Your task to perform on an android device: clear all cookies in the chrome app Image 0: 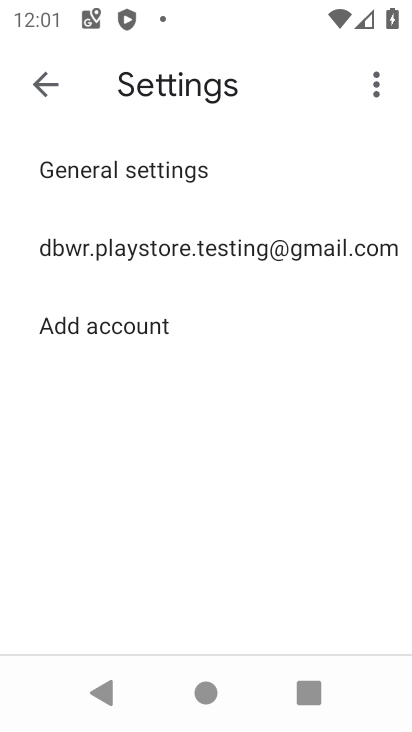
Step 0: click (158, 247)
Your task to perform on an android device: clear all cookies in the chrome app Image 1: 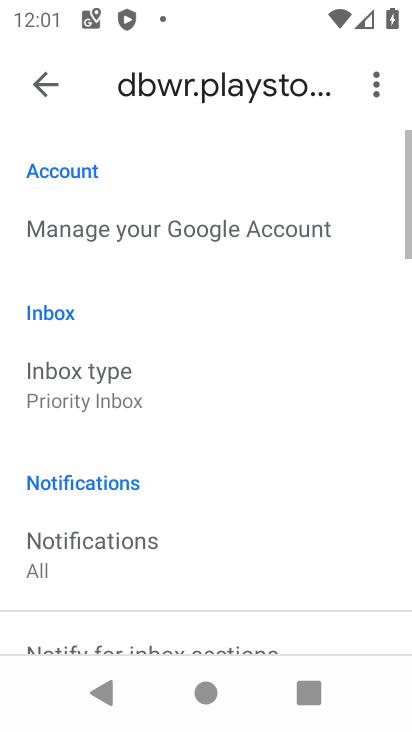
Step 1: click (60, 90)
Your task to perform on an android device: clear all cookies in the chrome app Image 2: 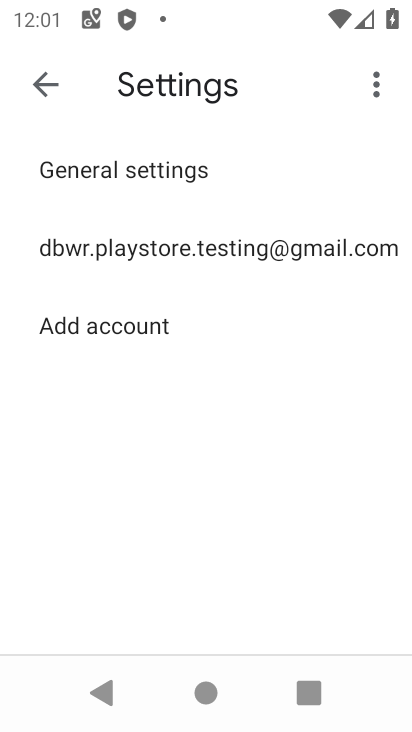
Step 2: press back button
Your task to perform on an android device: clear all cookies in the chrome app Image 3: 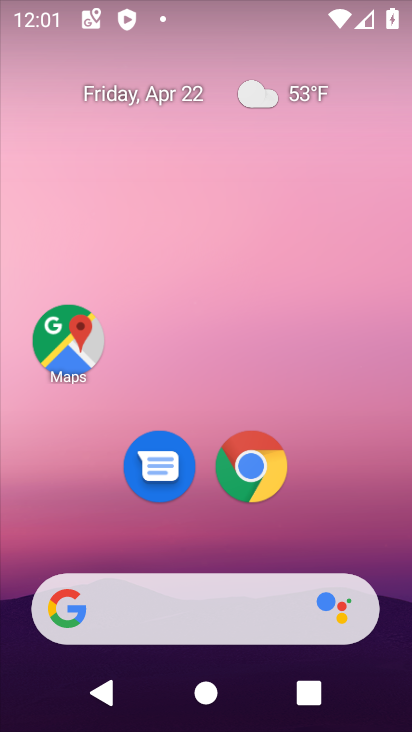
Step 3: click (254, 462)
Your task to perform on an android device: clear all cookies in the chrome app Image 4: 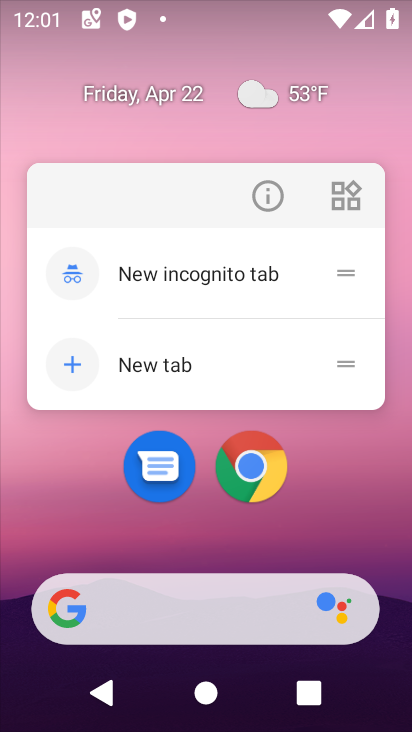
Step 4: click (247, 462)
Your task to perform on an android device: clear all cookies in the chrome app Image 5: 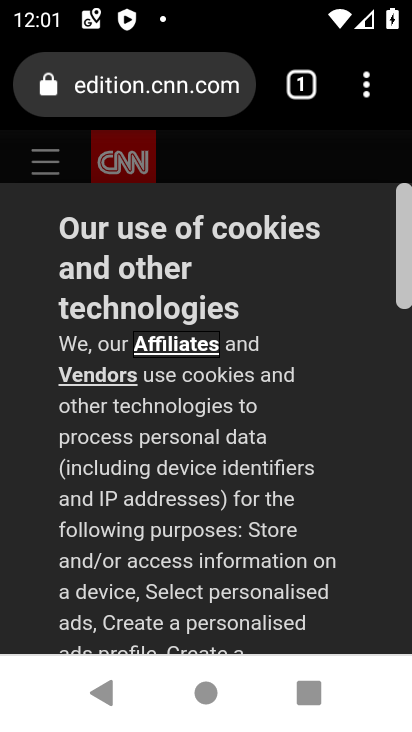
Step 5: drag from (359, 83) to (122, 513)
Your task to perform on an android device: clear all cookies in the chrome app Image 6: 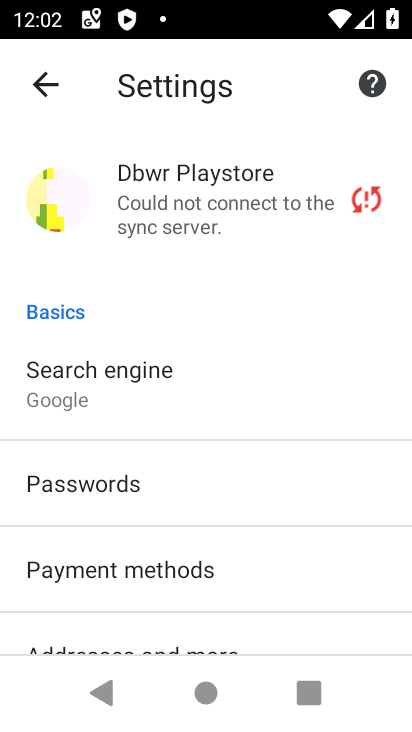
Step 6: drag from (211, 638) to (198, 331)
Your task to perform on an android device: clear all cookies in the chrome app Image 7: 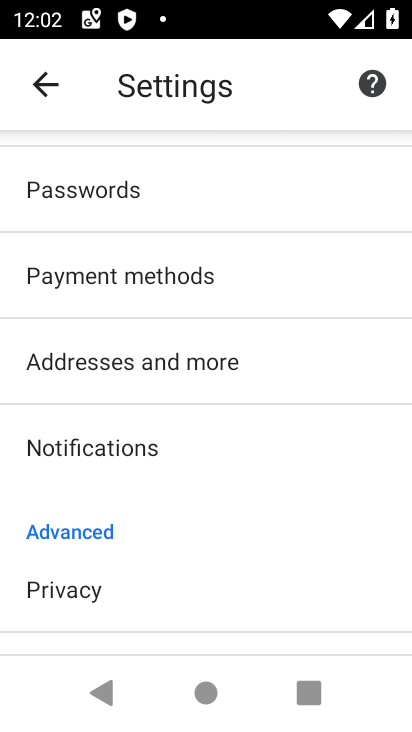
Step 7: drag from (215, 272) to (224, 559)
Your task to perform on an android device: clear all cookies in the chrome app Image 8: 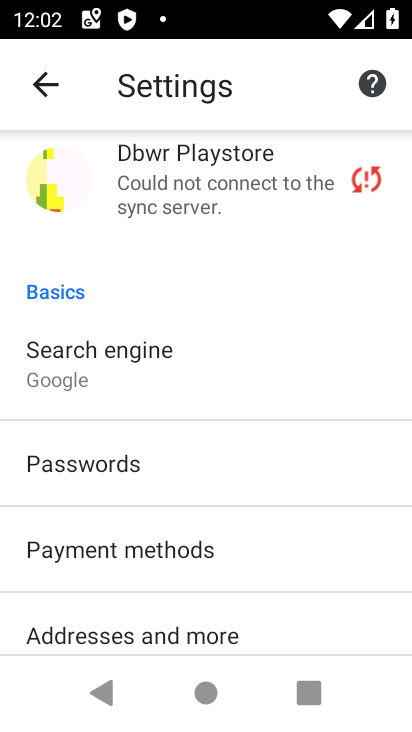
Step 8: drag from (270, 545) to (237, 332)
Your task to perform on an android device: clear all cookies in the chrome app Image 9: 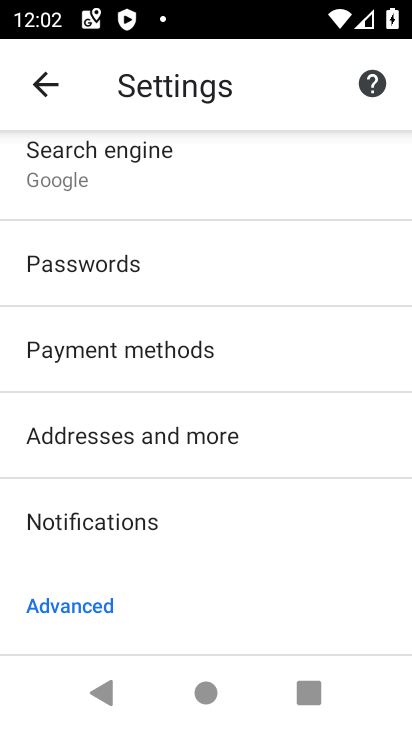
Step 9: drag from (189, 470) to (185, 199)
Your task to perform on an android device: clear all cookies in the chrome app Image 10: 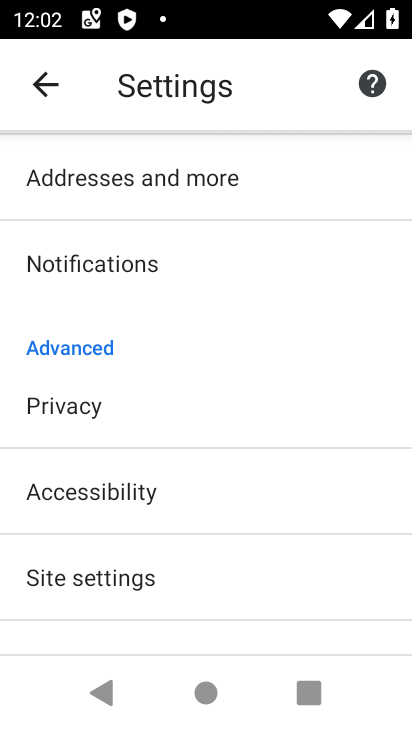
Step 10: click (129, 387)
Your task to perform on an android device: clear all cookies in the chrome app Image 11: 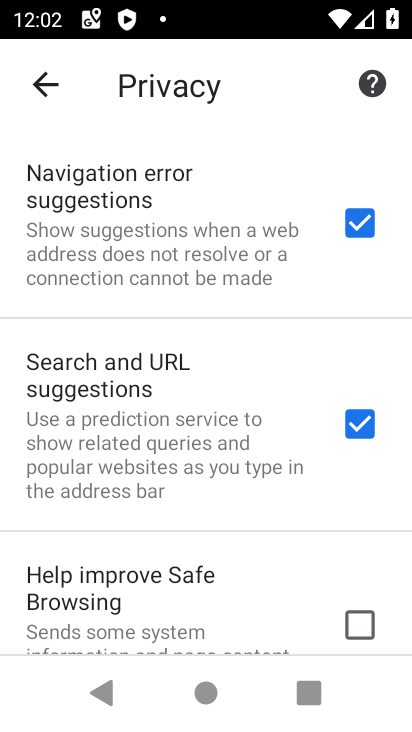
Step 11: drag from (190, 517) to (202, 101)
Your task to perform on an android device: clear all cookies in the chrome app Image 12: 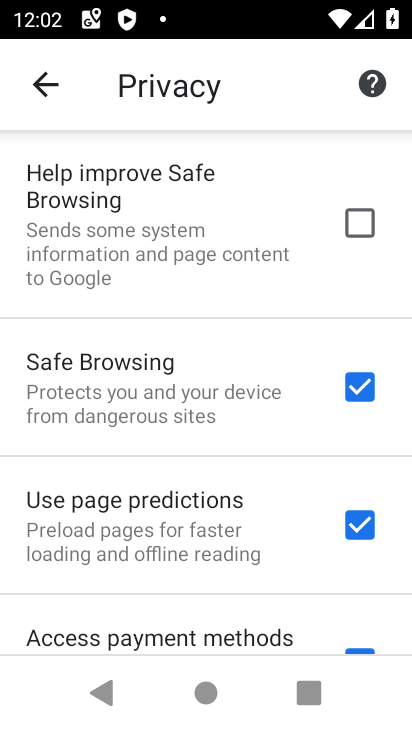
Step 12: drag from (151, 576) to (160, 203)
Your task to perform on an android device: clear all cookies in the chrome app Image 13: 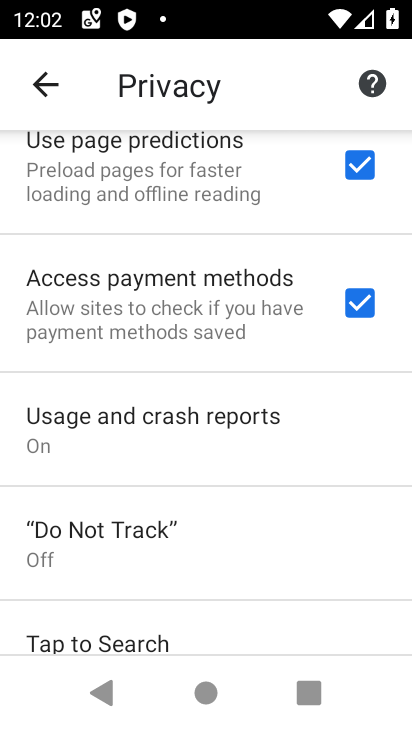
Step 13: drag from (159, 431) to (189, 136)
Your task to perform on an android device: clear all cookies in the chrome app Image 14: 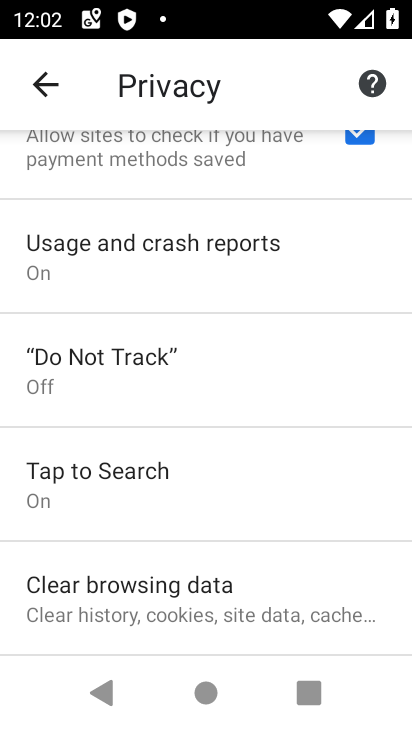
Step 14: drag from (187, 544) to (157, 191)
Your task to perform on an android device: clear all cookies in the chrome app Image 15: 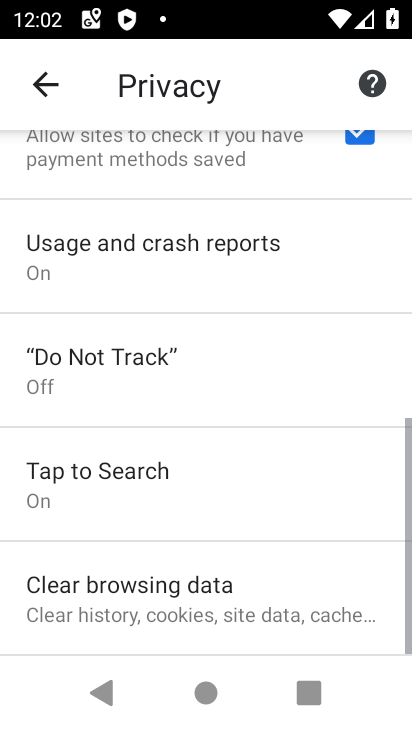
Step 15: click (107, 561)
Your task to perform on an android device: clear all cookies in the chrome app Image 16: 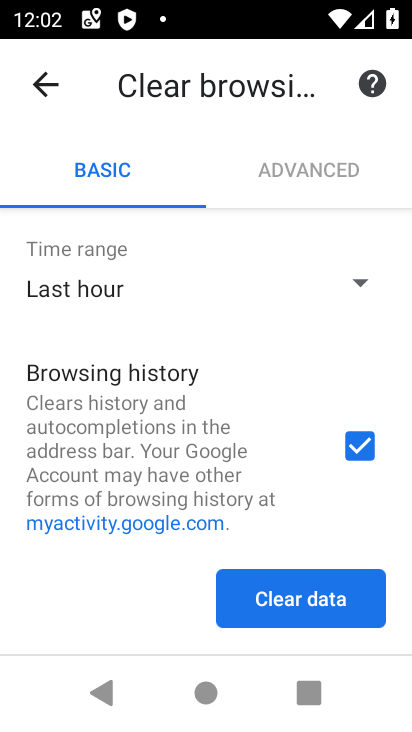
Step 16: drag from (219, 422) to (244, 197)
Your task to perform on an android device: clear all cookies in the chrome app Image 17: 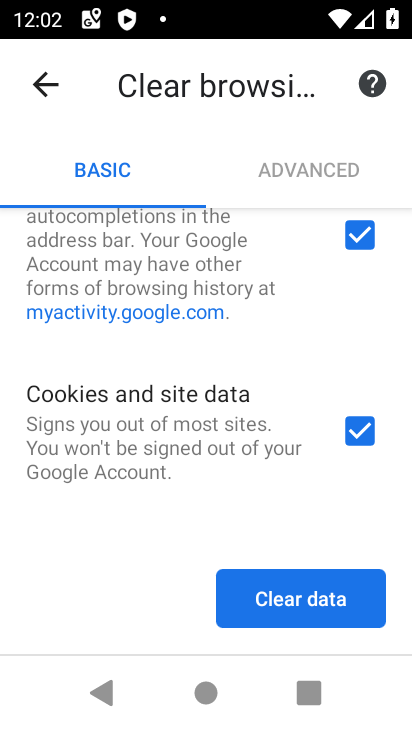
Step 17: click (349, 232)
Your task to perform on an android device: clear all cookies in the chrome app Image 18: 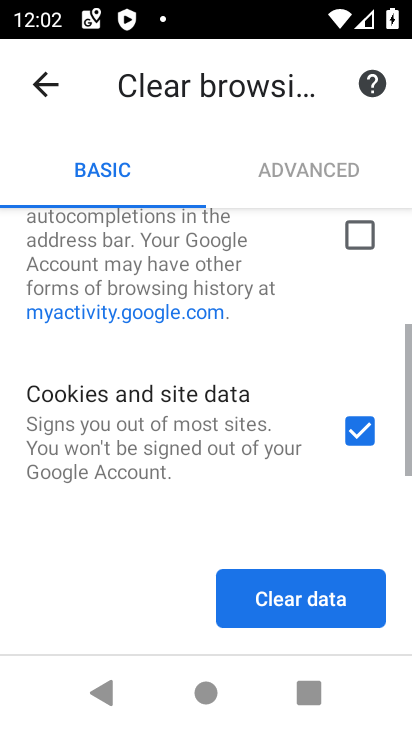
Step 18: drag from (207, 476) to (211, 255)
Your task to perform on an android device: clear all cookies in the chrome app Image 19: 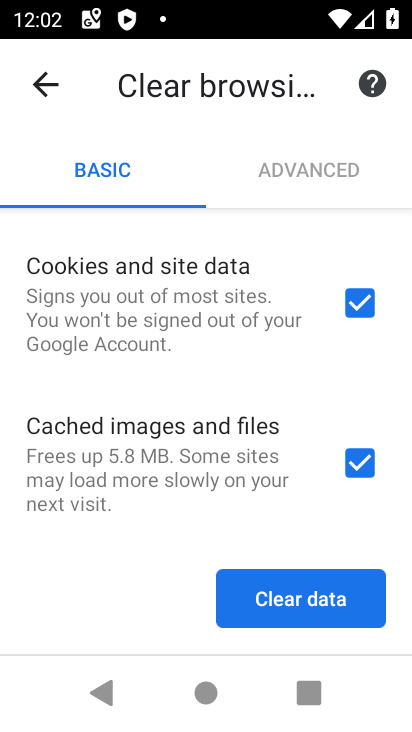
Step 19: click (346, 458)
Your task to perform on an android device: clear all cookies in the chrome app Image 20: 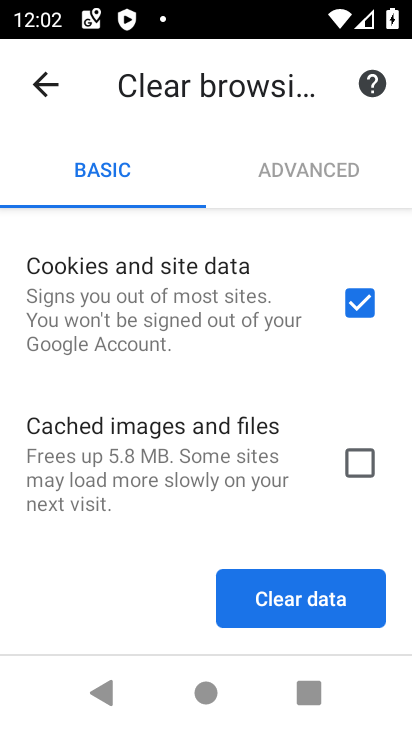
Step 20: click (314, 604)
Your task to perform on an android device: clear all cookies in the chrome app Image 21: 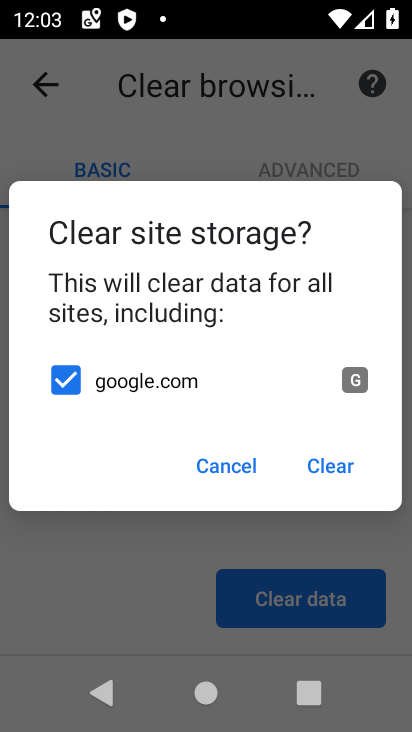
Step 21: click (308, 460)
Your task to perform on an android device: clear all cookies in the chrome app Image 22: 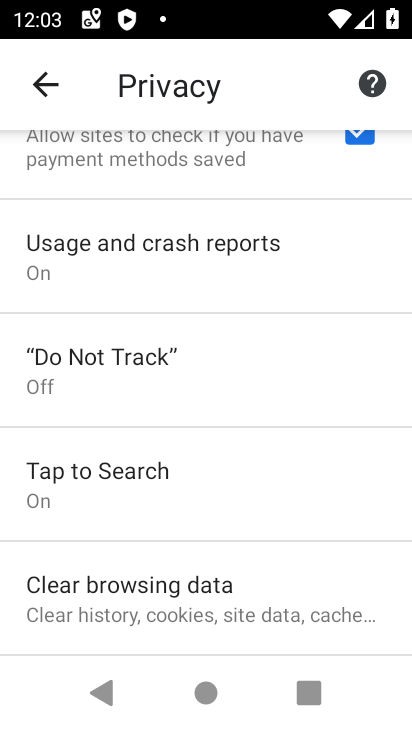
Step 22: task complete